Your task to perform on an android device: change your default location settings in chrome Image 0: 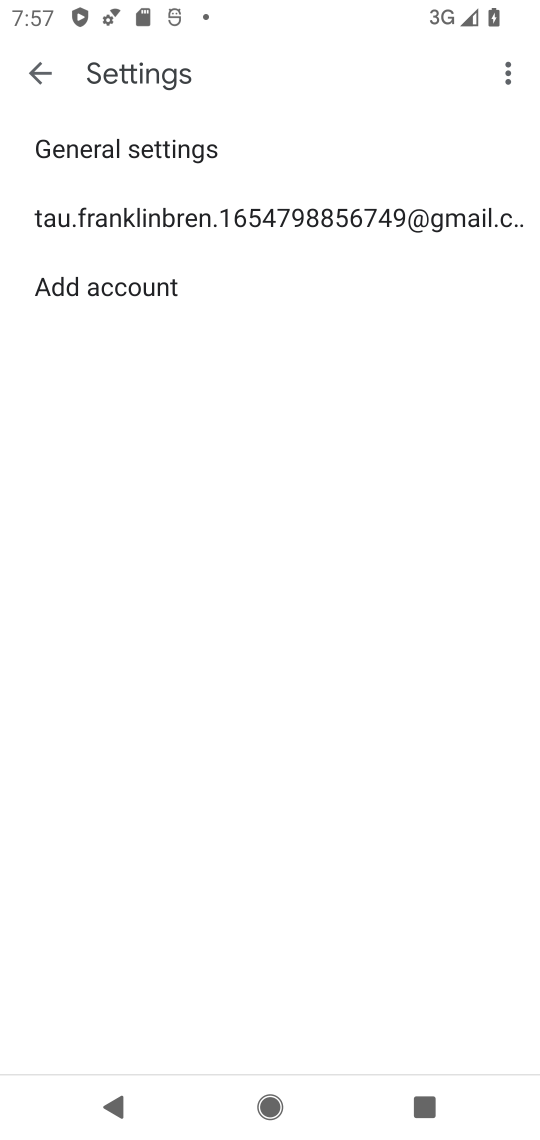
Step 0: press home button
Your task to perform on an android device: change your default location settings in chrome Image 1: 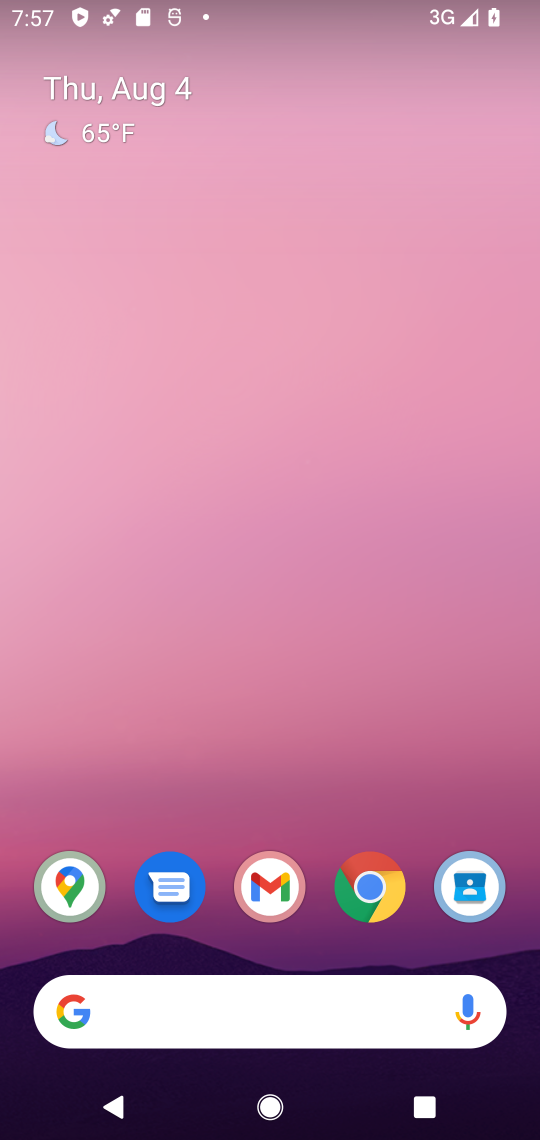
Step 1: drag from (281, 968) to (330, 398)
Your task to perform on an android device: change your default location settings in chrome Image 2: 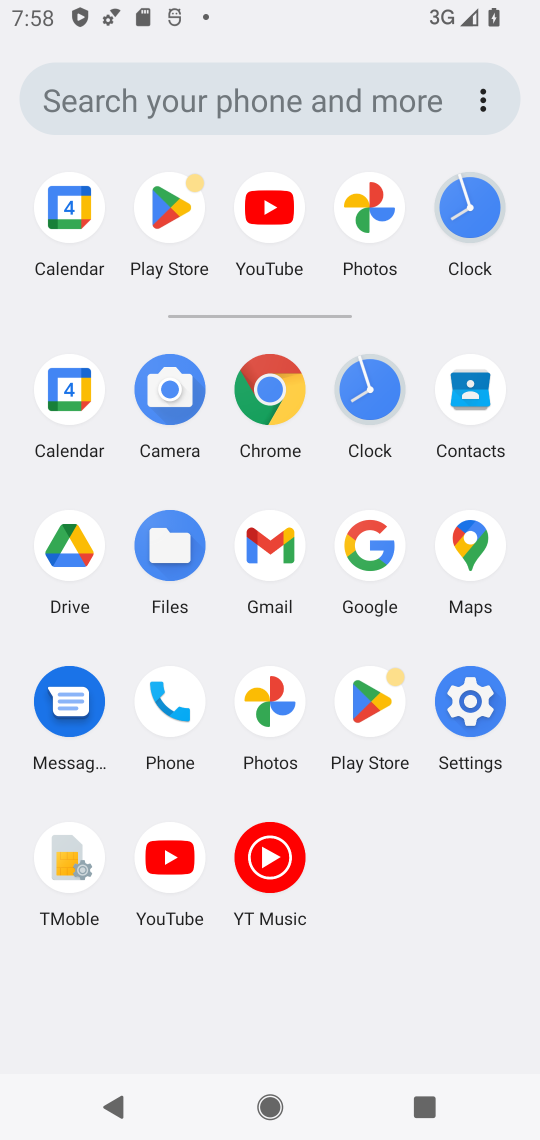
Step 2: click (277, 391)
Your task to perform on an android device: change your default location settings in chrome Image 3: 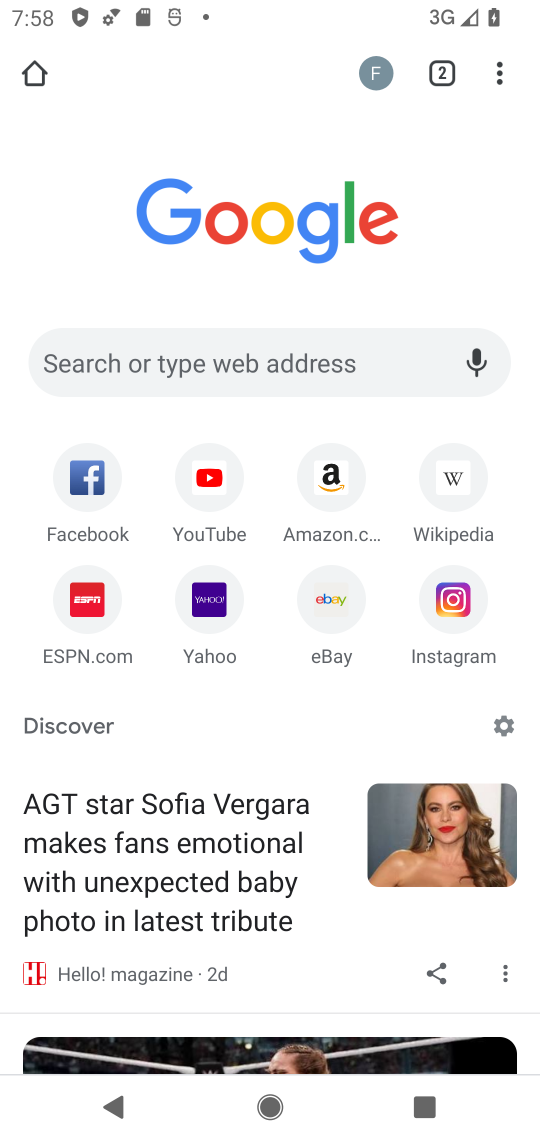
Step 3: click (498, 69)
Your task to perform on an android device: change your default location settings in chrome Image 4: 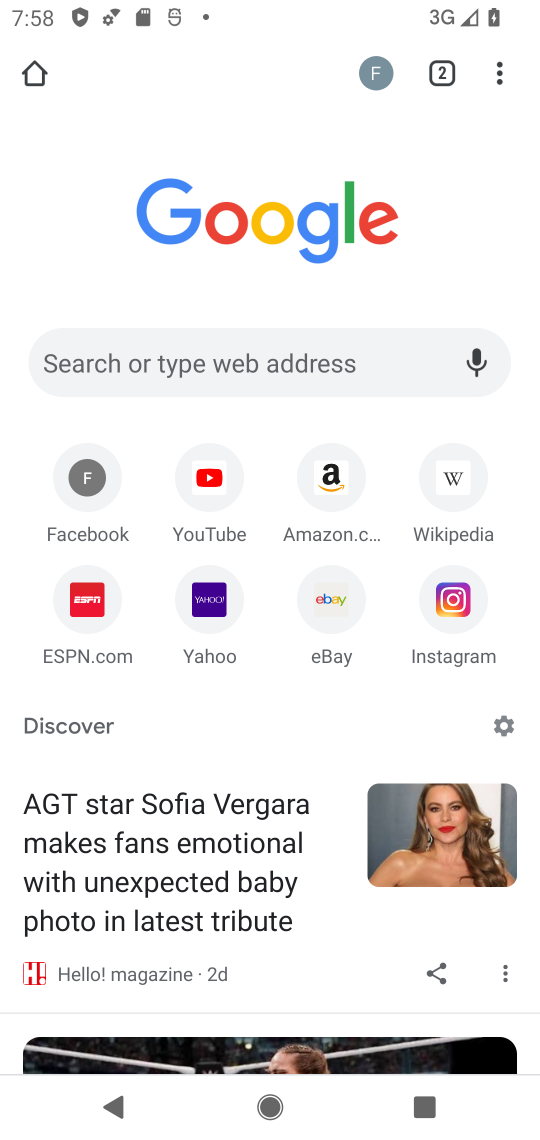
Step 4: click (498, 69)
Your task to perform on an android device: change your default location settings in chrome Image 5: 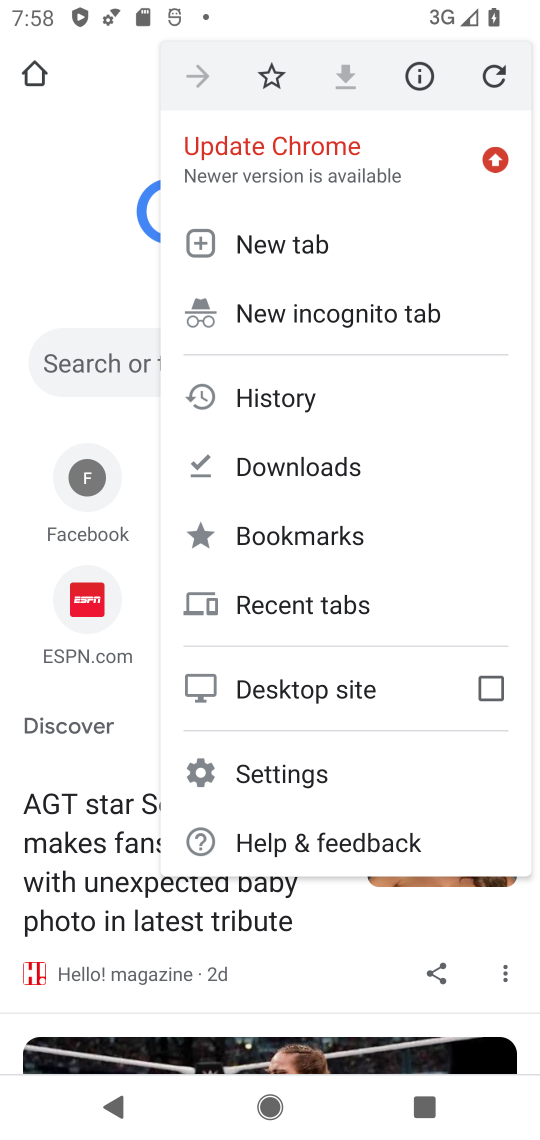
Step 5: click (268, 760)
Your task to perform on an android device: change your default location settings in chrome Image 6: 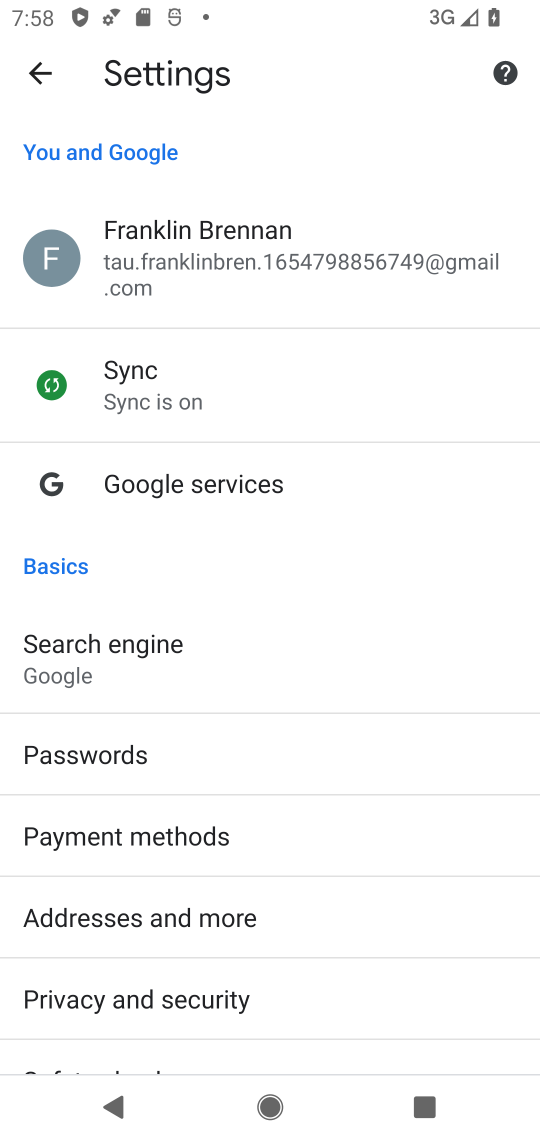
Step 6: drag from (103, 995) to (154, 386)
Your task to perform on an android device: change your default location settings in chrome Image 7: 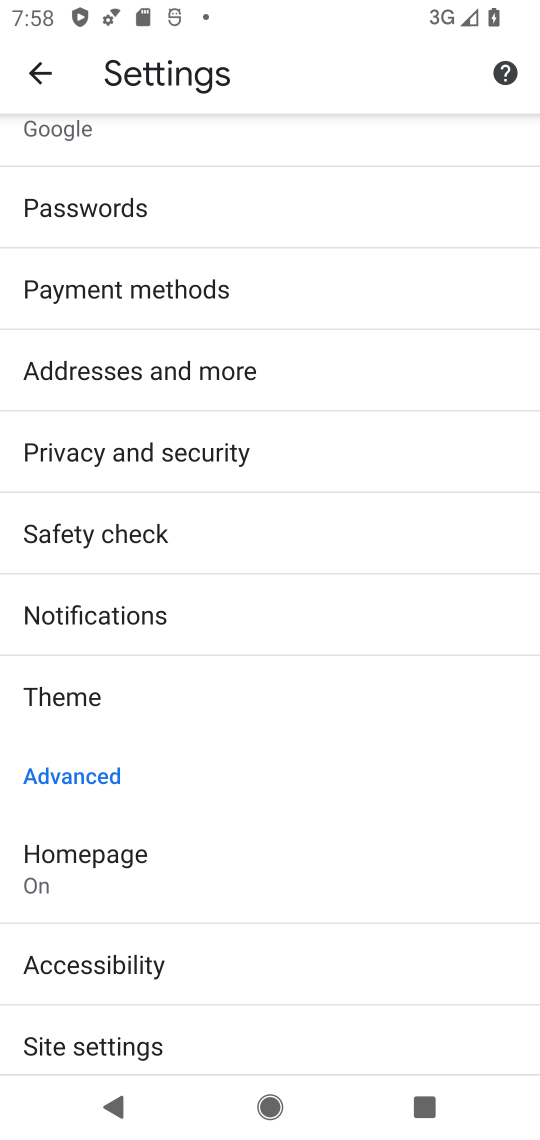
Step 7: click (75, 1036)
Your task to perform on an android device: change your default location settings in chrome Image 8: 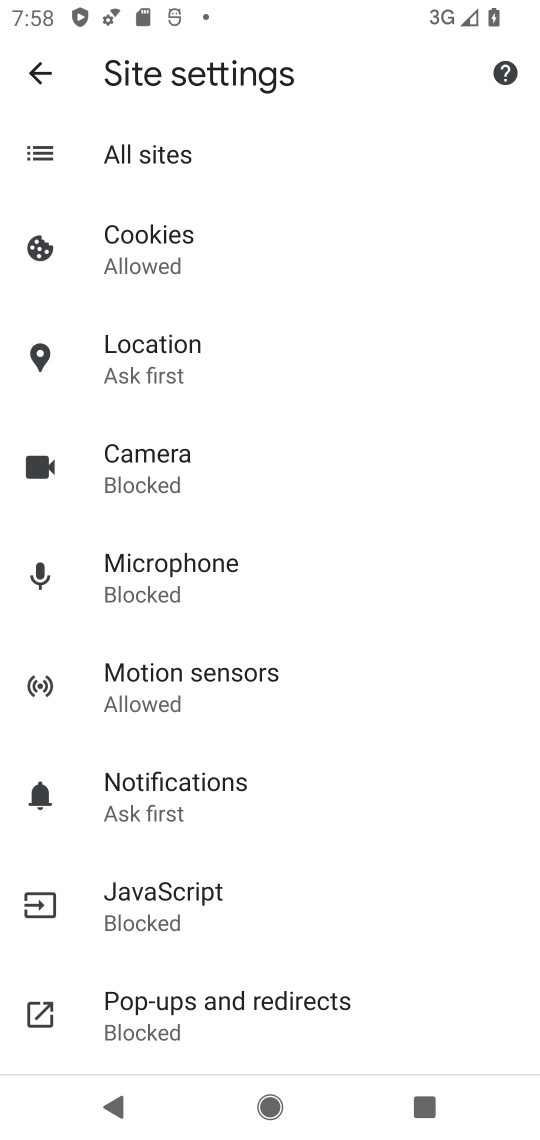
Step 8: click (165, 344)
Your task to perform on an android device: change your default location settings in chrome Image 9: 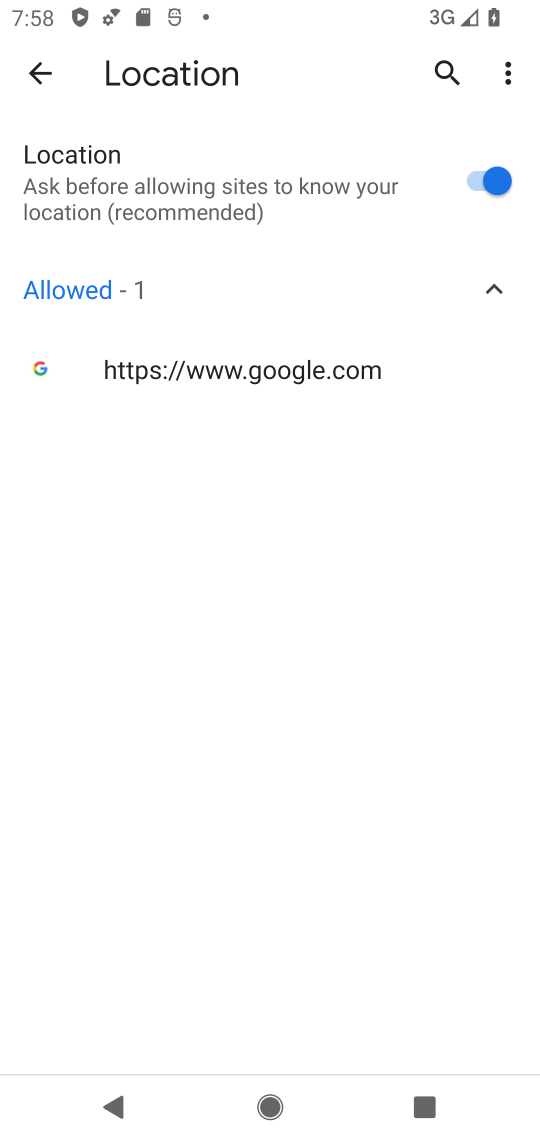
Step 9: click (482, 189)
Your task to perform on an android device: change your default location settings in chrome Image 10: 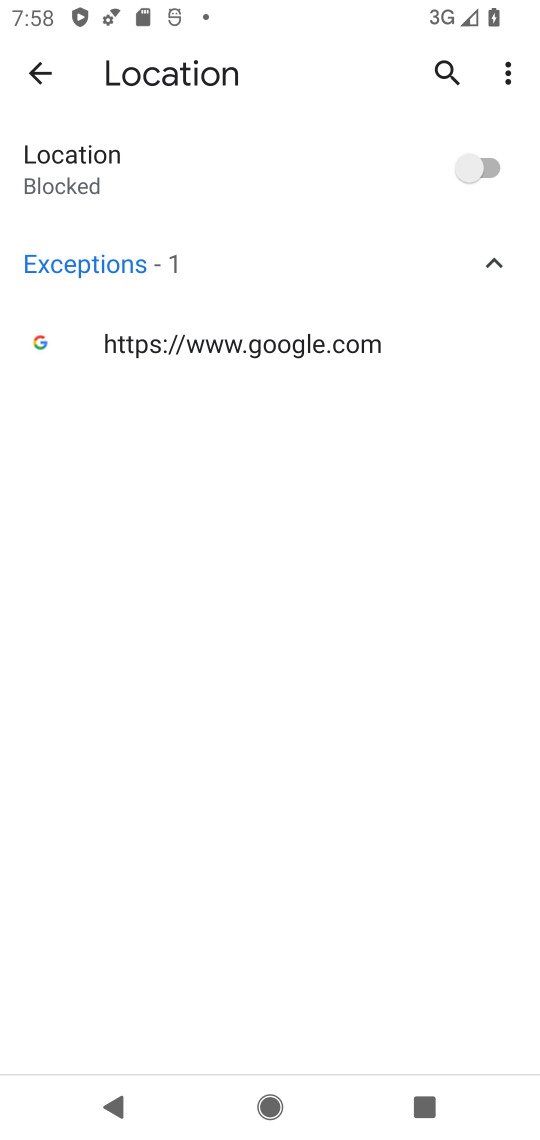
Step 10: task complete